Your task to perform on an android device: clear all cookies in the chrome app Image 0: 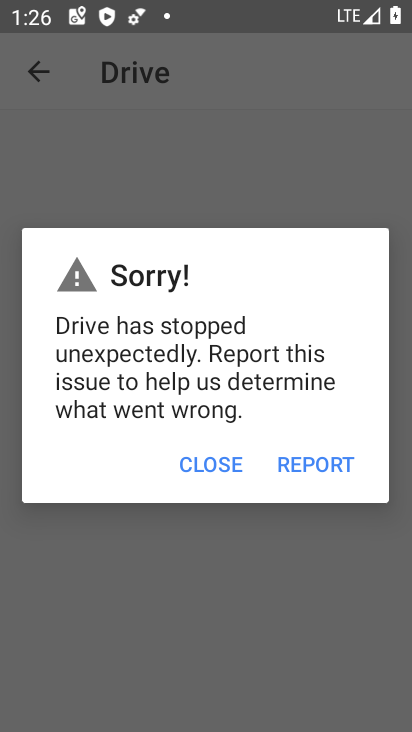
Step 0: press home button
Your task to perform on an android device: clear all cookies in the chrome app Image 1: 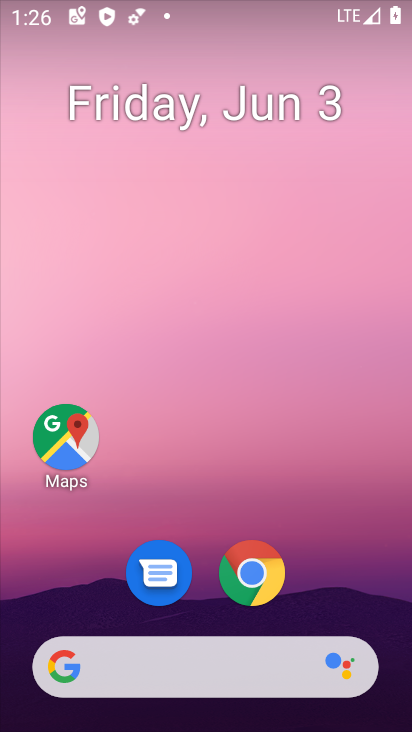
Step 1: drag from (344, 599) to (337, 158)
Your task to perform on an android device: clear all cookies in the chrome app Image 2: 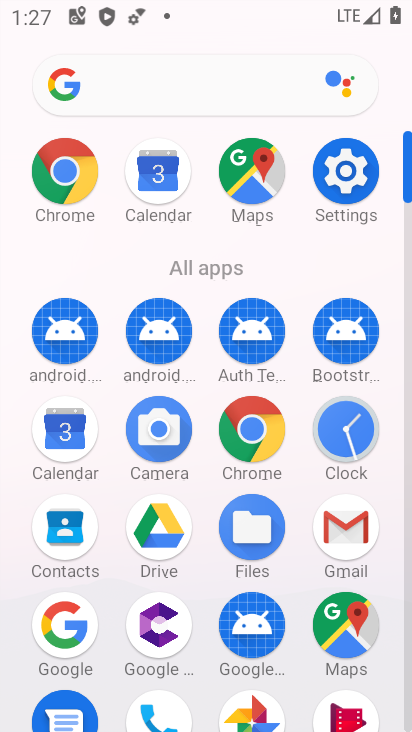
Step 2: click (265, 434)
Your task to perform on an android device: clear all cookies in the chrome app Image 3: 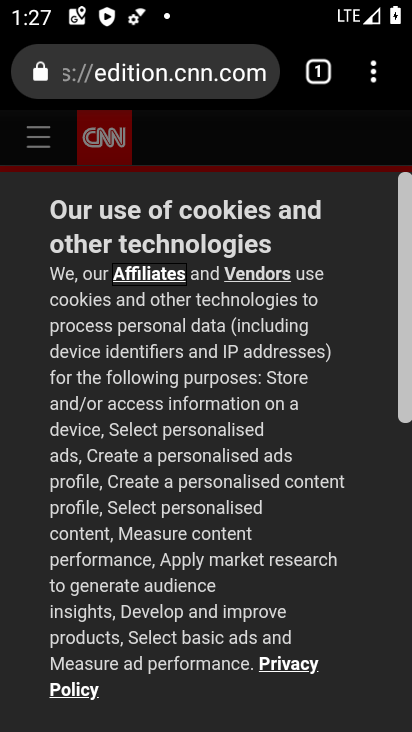
Step 3: click (371, 88)
Your task to perform on an android device: clear all cookies in the chrome app Image 4: 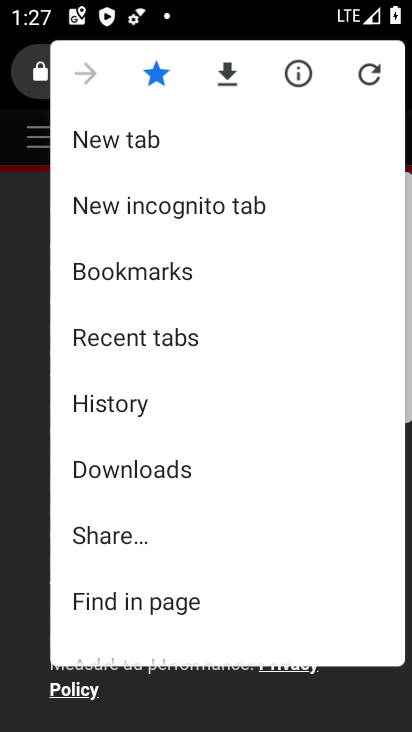
Step 4: drag from (293, 475) to (333, 243)
Your task to perform on an android device: clear all cookies in the chrome app Image 5: 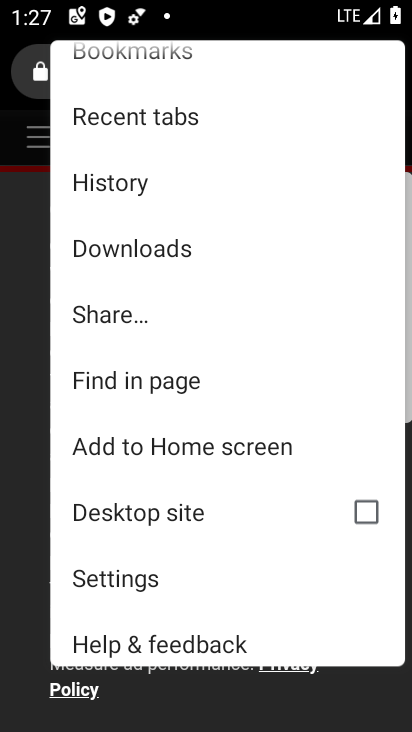
Step 5: drag from (282, 567) to (301, 400)
Your task to perform on an android device: clear all cookies in the chrome app Image 6: 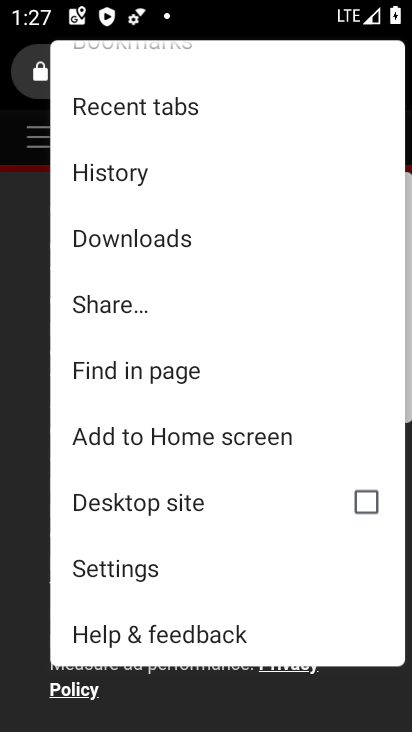
Step 6: click (149, 577)
Your task to perform on an android device: clear all cookies in the chrome app Image 7: 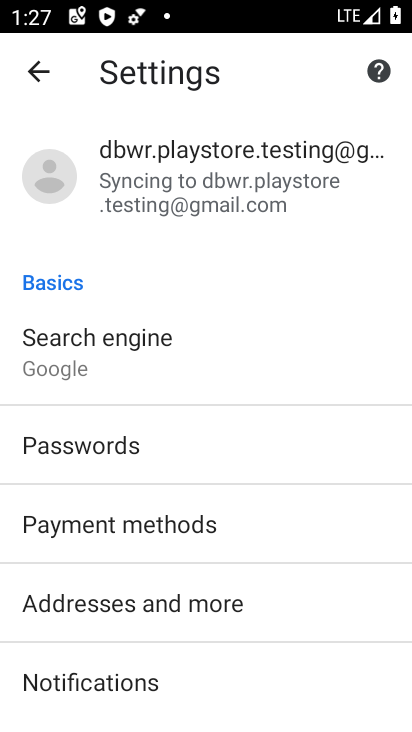
Step 7: drag from (305, 594) to (299, 339)
Your task to perform on an android device: clear all cookies in the chrome app Image 8: 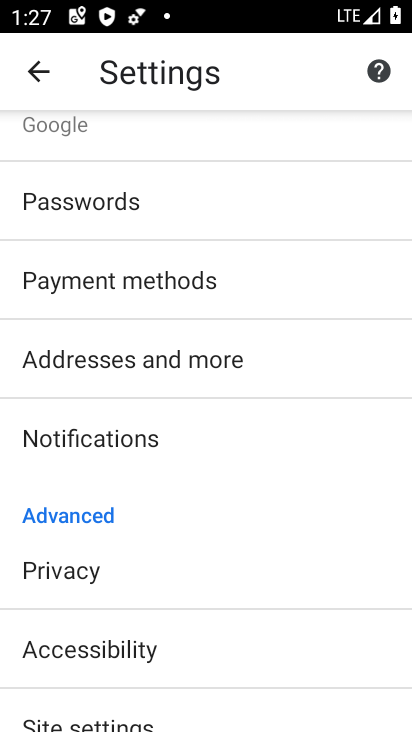
Step 8: click (265, 581)
Your task to perform on an android device: clear all cookies in the chrome app Image 9: 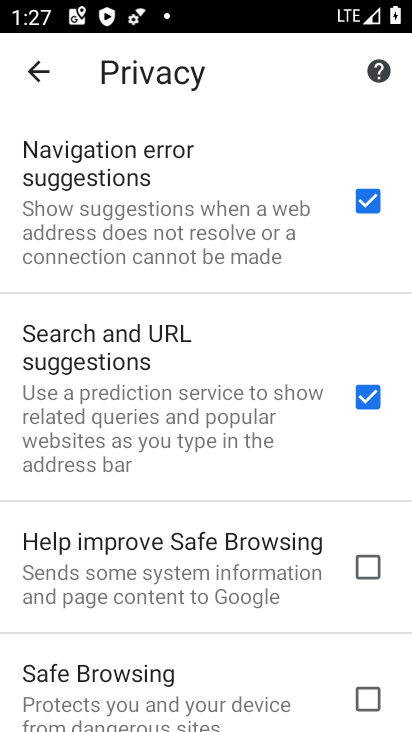
Step 9: drag from (275, 486) to (279, 427)
Your task to perform on an android device: clear all cookies in the chrome app Image 10: 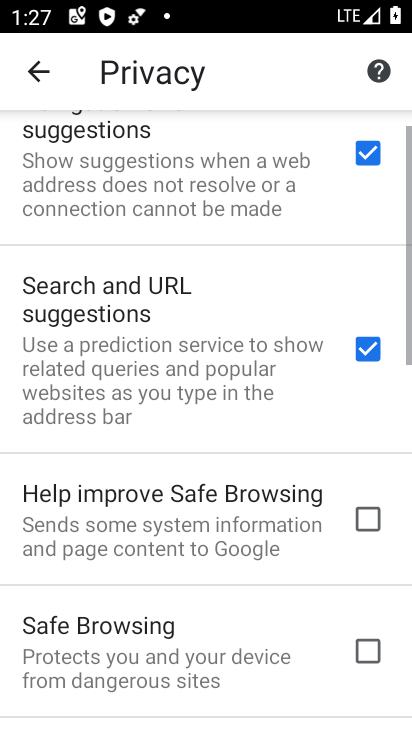
Step 10: drag from (278, 498) to (277, 364)
Your task to perform on an android device: clear all cookies in the chrome app Image 11: 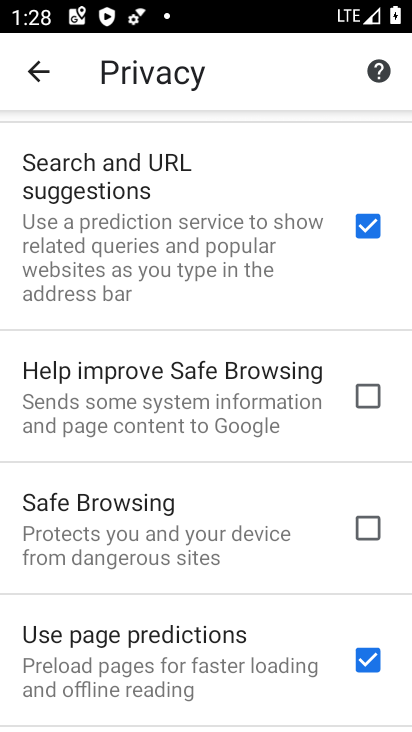
Step 11: drag from (238, 614) to (258, 413)
Your task to perform on an android device: clear all cookies in the chrome app Image 12: 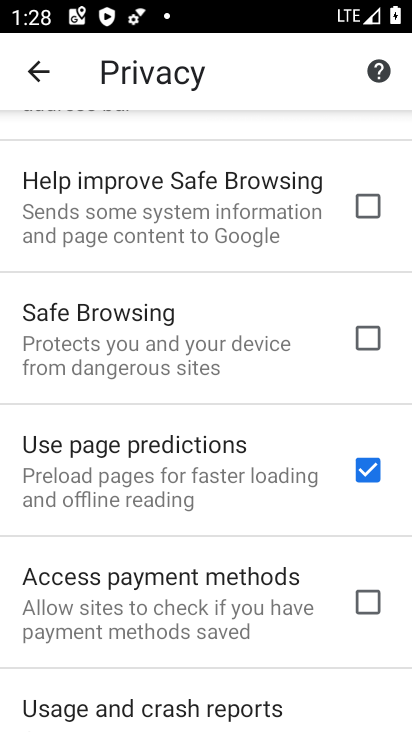
Step 12: drag from (206, 512) to (258, 133)
Your task to perform on an android device: clear all cookies in the chrome app Image 13: 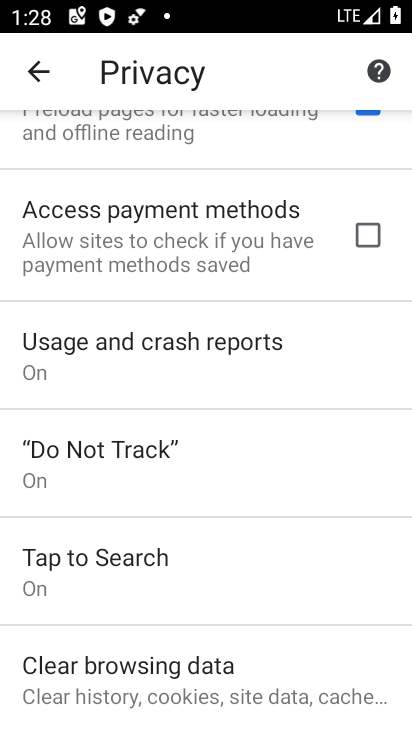
Step 13: click (235, 692)
Your task to perform on an android device: clear all cookies in the chrome app Image 14: 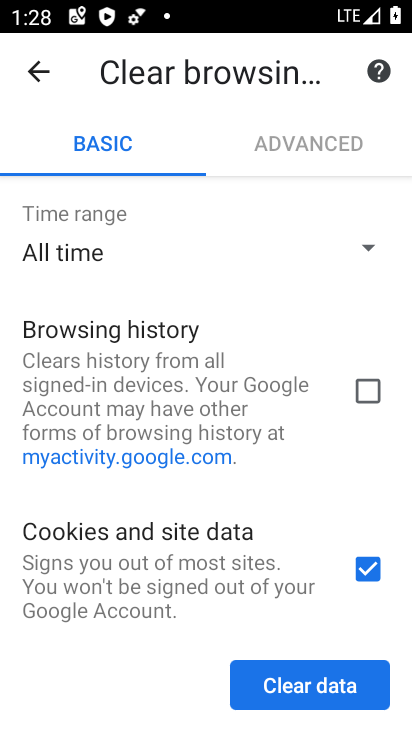
Step 14: click (327, 695)
Your task to perform on an android device: clear all cookies in the chrome app Image 15: 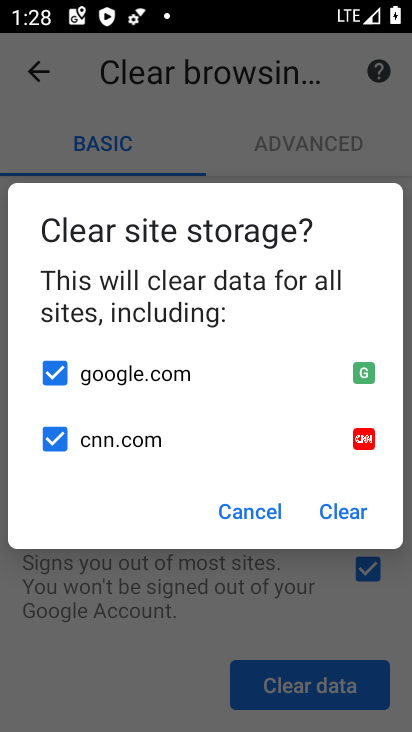
Step 15: click (339, 504)
Your task to perform on an android device: clear all cookies in the chrome app Image 16: 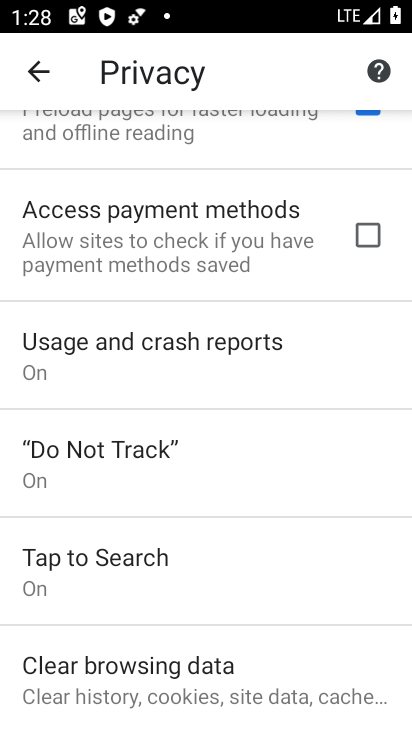
Step 16: task complete